Your task to perform on an android device: See recent photos Image 0: 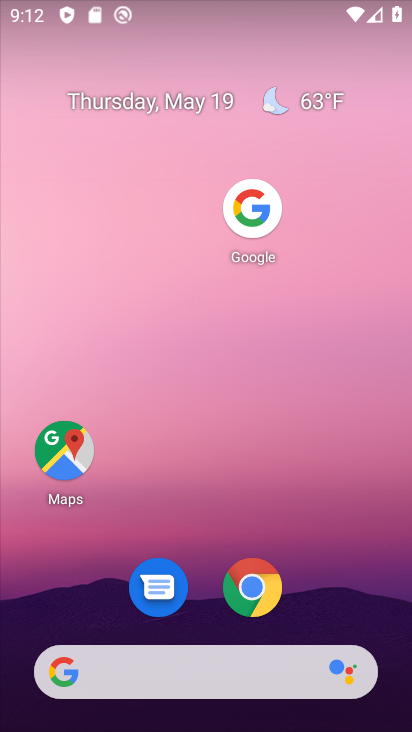
Step 0: drag from (212, 625) to (160, 27)
Your task to perform on an android device: See recent photos Image 1: 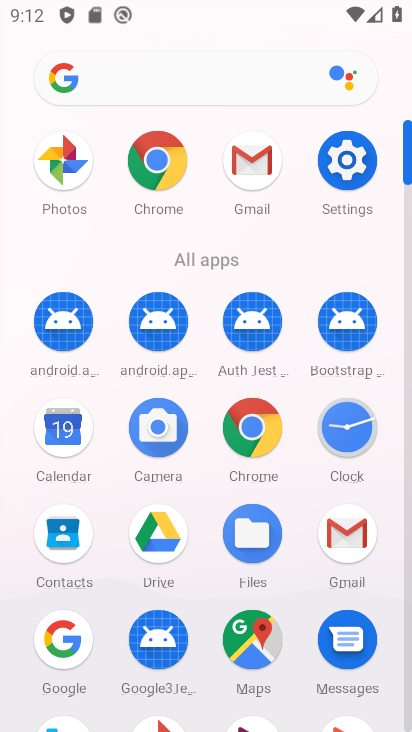
Step 1: drag from (212, 702) to (189, 151)
Your task to perform on an android device: See recent photos Image 2: 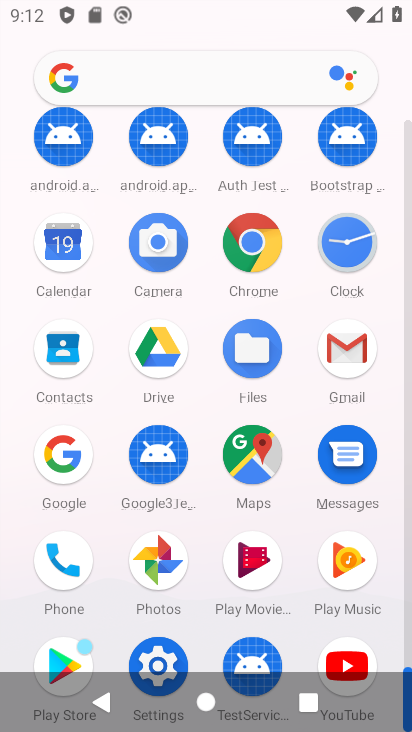
Step 2: click (162, 576)
Your task to perform on an android device: See recent photos Image 3: 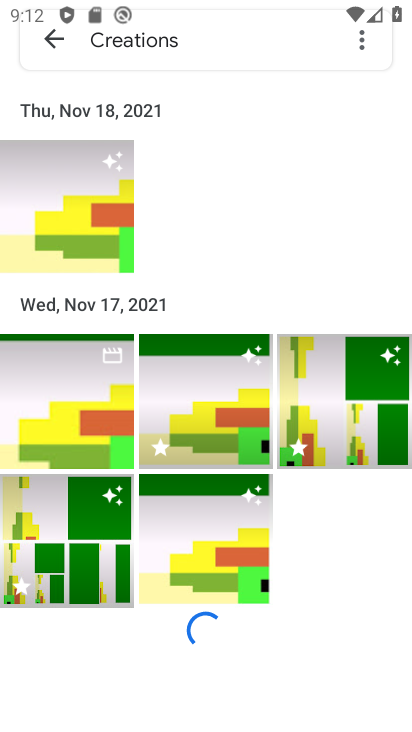
Step 3: click (45, 34)
Your task to perform on an android device: See recent photos Image 4: 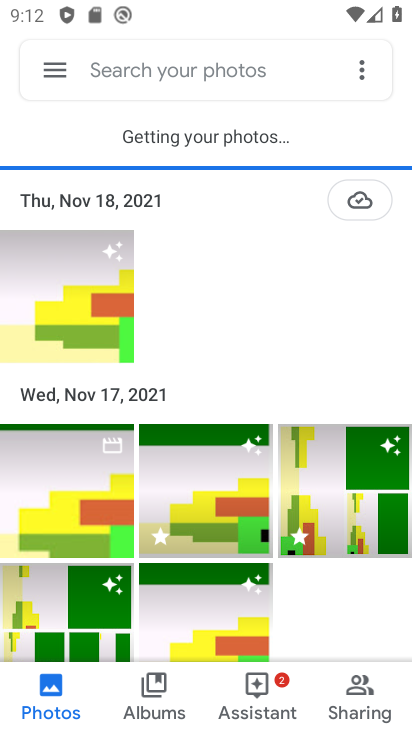
Step 4: task complete